Your task to perform on an android device: open a new tab in the chrome app Image 0: 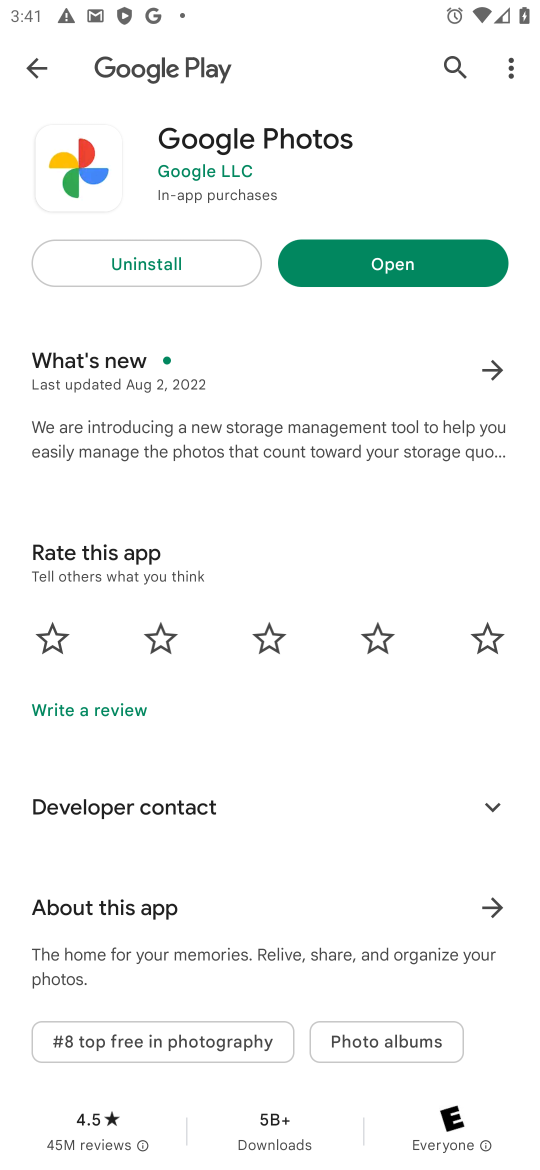
Step 0: press home button
Your task to perform on an android device: open a new tab in the chrome app Image 1: 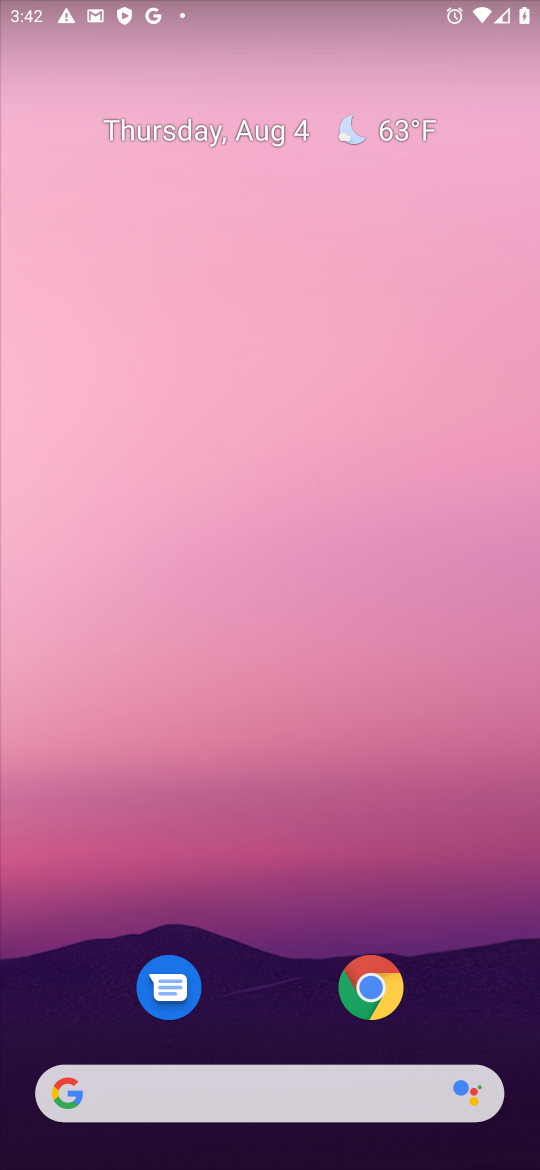
Step 1: click (369, 1005)
Your task to perform on an android device: open a new tab in the chrome app Image 2: 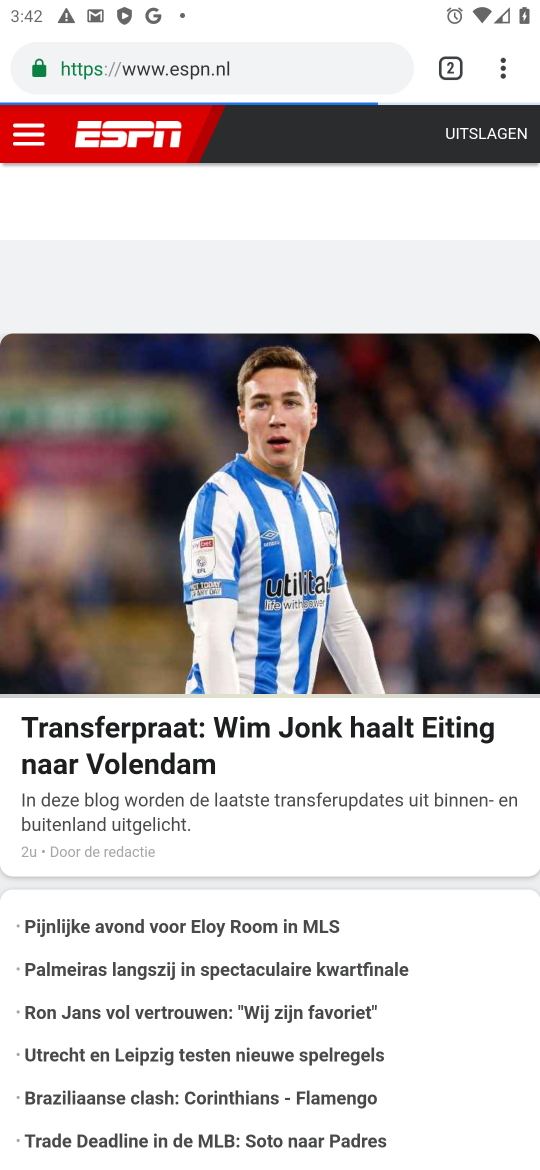
Step 2: click (446, 66)
Your task to perform on an android device: open a new tab in the chrome app Image 3: 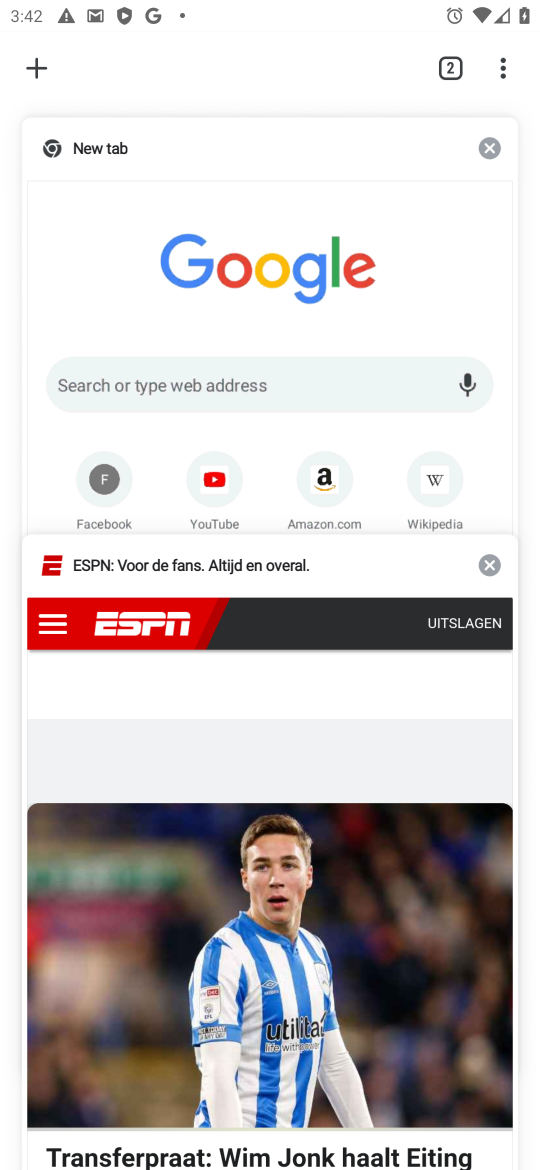
Step 3: click (38, 79)
Your task to perform on an android device: open a new tab in the chrome app Image 4: 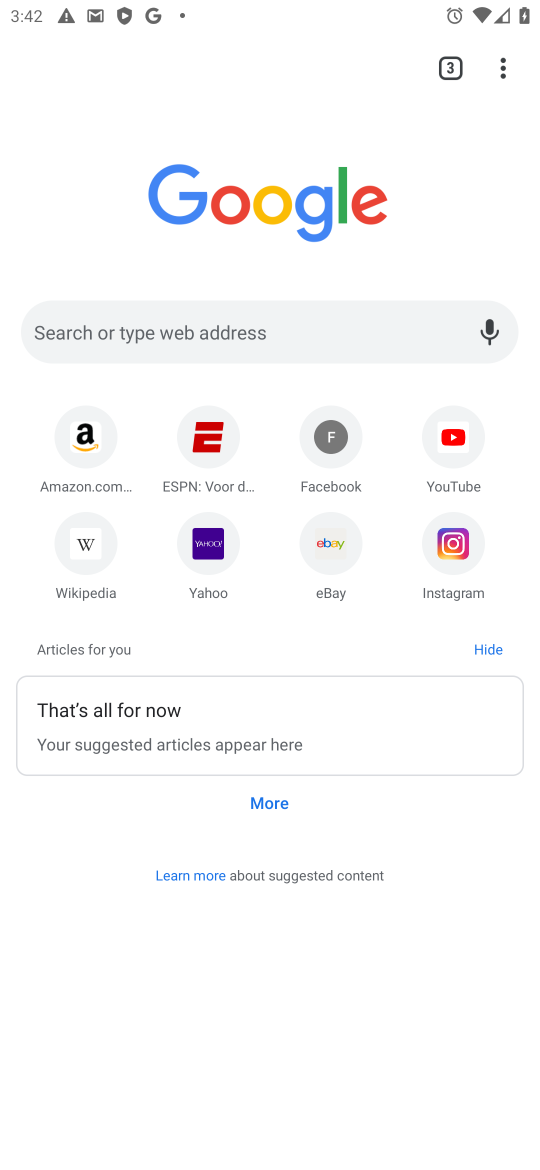
Step 4: task complete